Your task to perform on an android device: Open network settings Image 0: 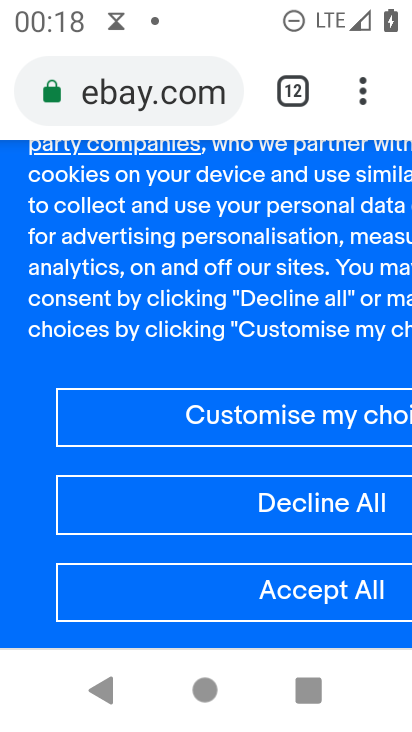
Step 0: press home button
Your task to perform on an android device: Open network settings Image 1: 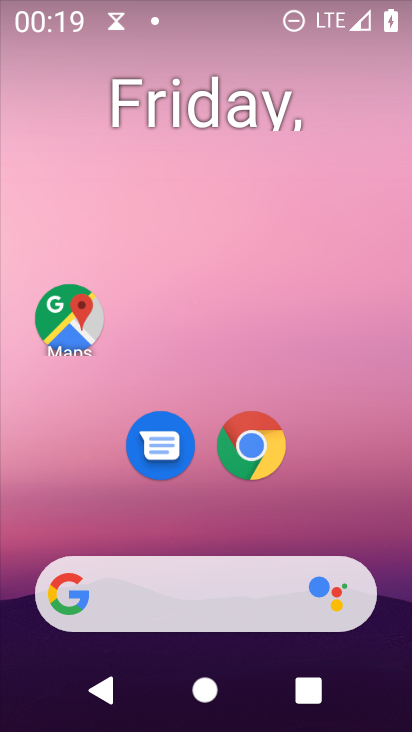
Step 1: drag from (239, 719) to (196, 80)
Your task to perform on an android device: Open network settings Image 2: 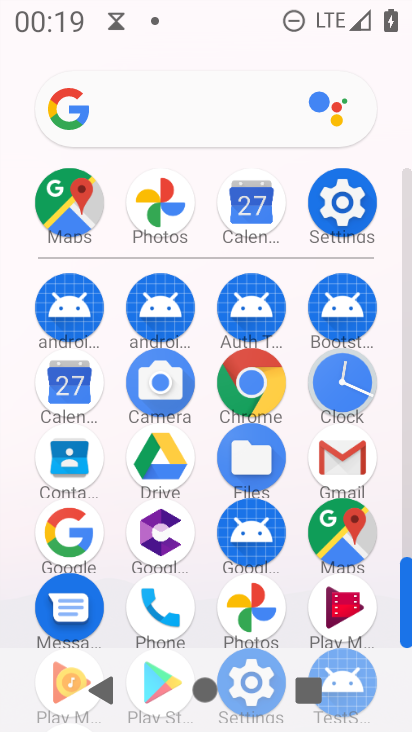
Step 2: click (342, 194)
Your task to perform on an android device: Open network settings Image 3: 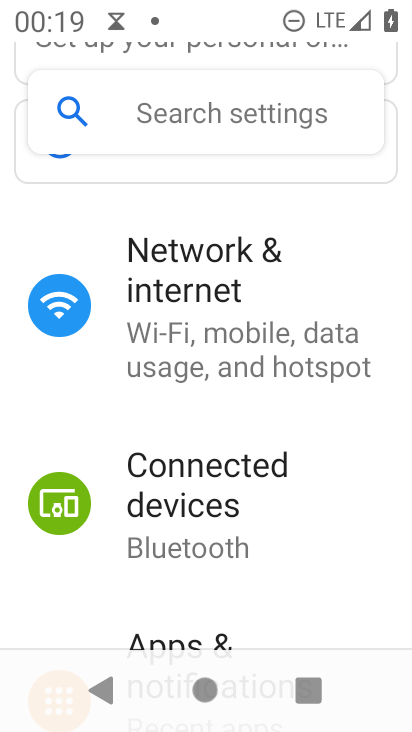
Step 3: click (198, 291)
Your task to perform on an android device: Open network settings Image 4: 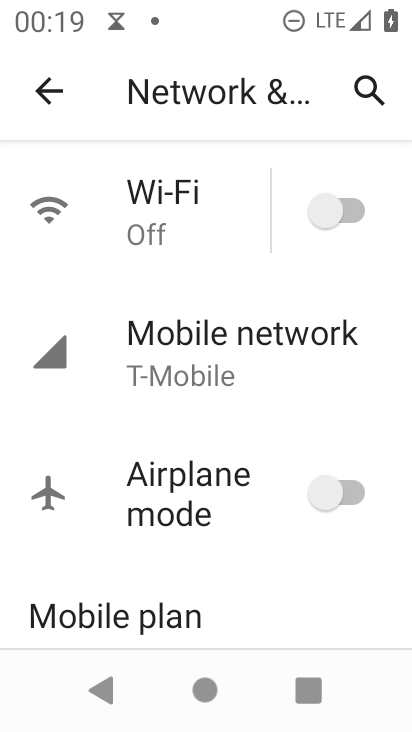
Step 4: click (205, 346)
Your task to perform on an android device: Open network settings Image 5: 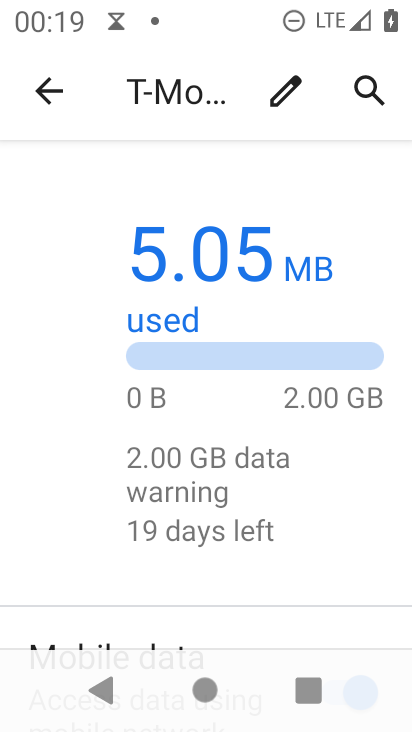
Step 5: task complete